Your task to perform on an android device: toggle pop-ups in chrome Image 0: 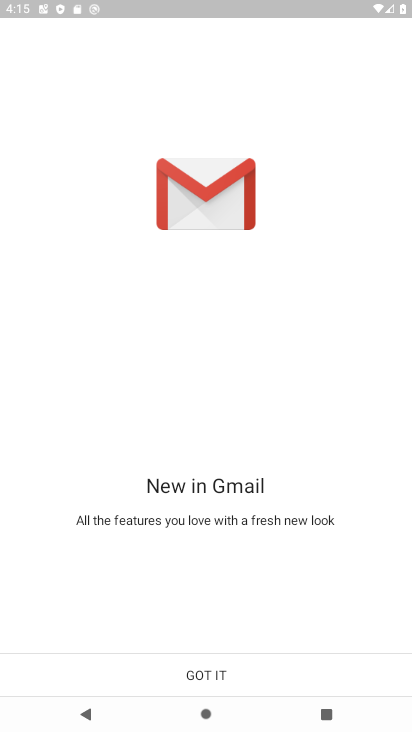
Step 0: press home button
Your task to perform on an android device: toggle pop-ups in chrome Image 1: 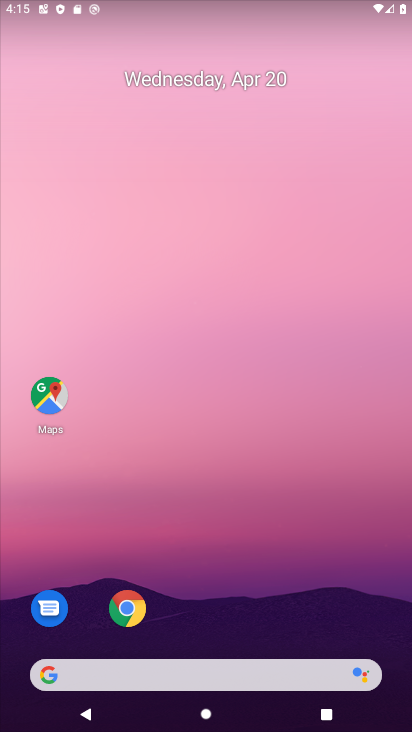
Step 1: drag from (292, 597) to (346, 148)
Your task to perform on an android device: toggle pop-ups in chrome Image 2: 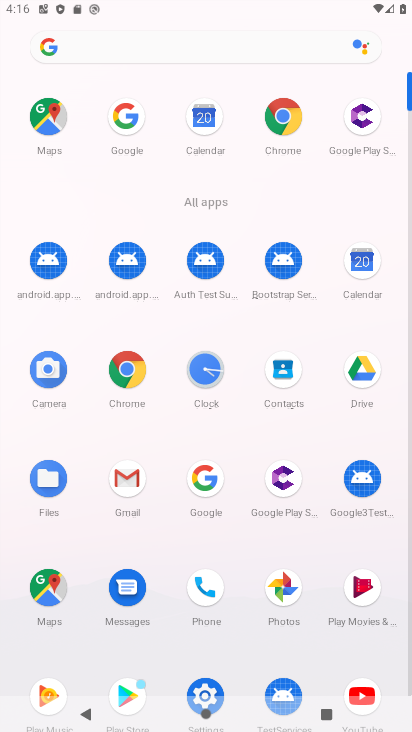
Step 2: click (287, 126)
Your task to perform on an android device: toggle pop-ups in chrome Image 3: 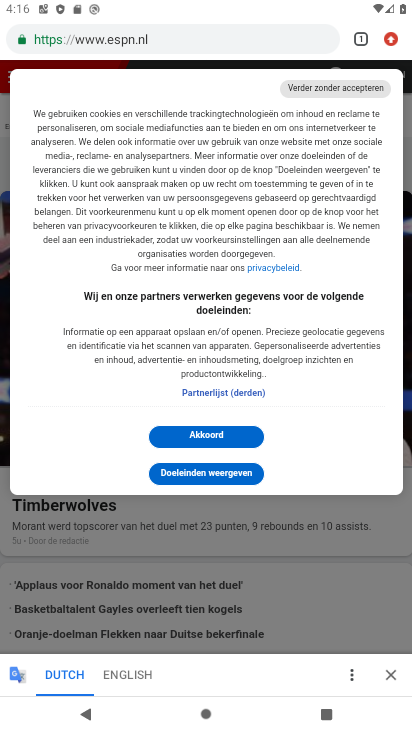
Step 3: drag from (387, 56) to (241, 504)
Your task to perform on an android device: toggle pop-ups in chrome Image 4: 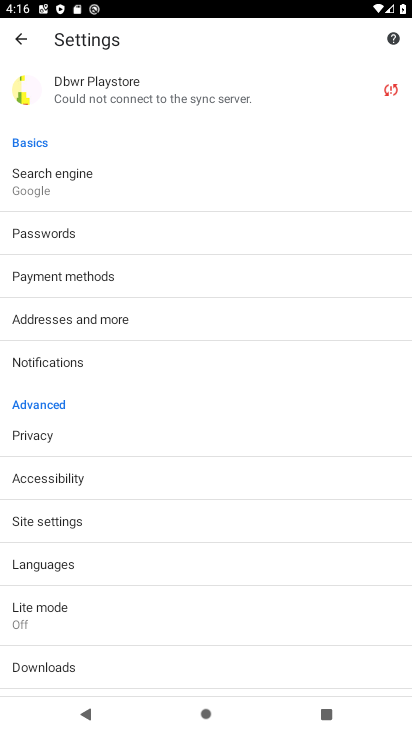
Step 4: click (149, 519)
Your task to perform on an android device: toggle pop-ups in chrome Image 5: 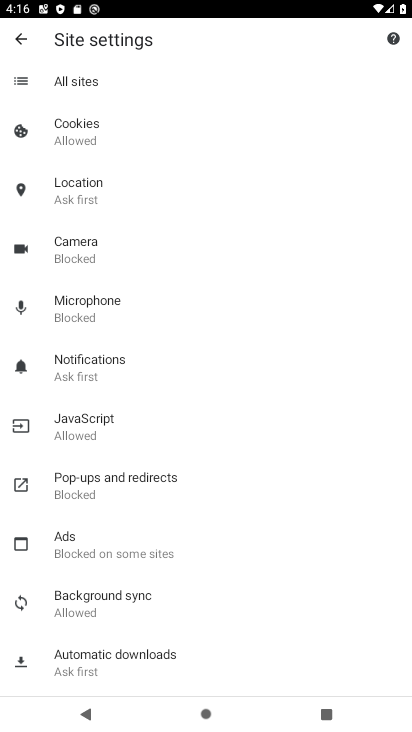
Step 5: click (164, 489)
Your task to perform on an android device: toggle pop-ups in chrome Image 6: 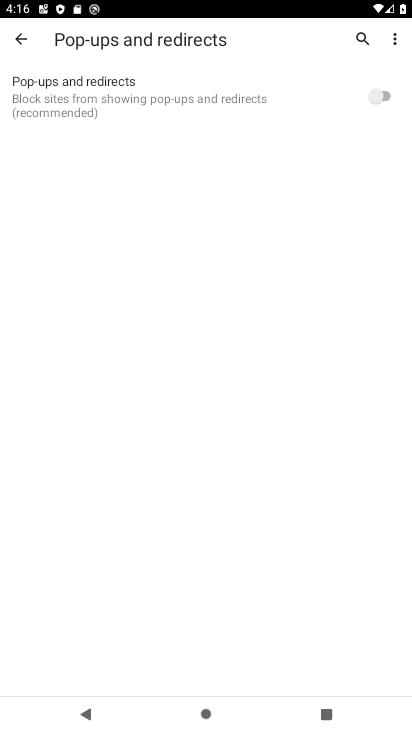
Step 6: click (382, 95)
Your task to perform on an android device: toggle pop-ups in chrome Image 7: 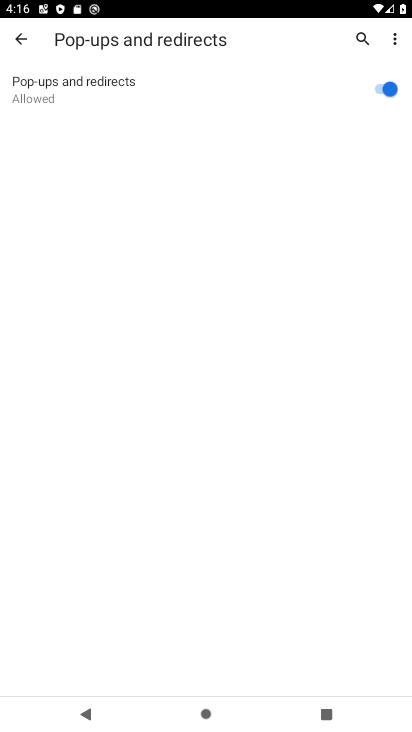
Step 7: task complete